Your task to perform on an android device: Is it going to rain tomorrow? Image 0: 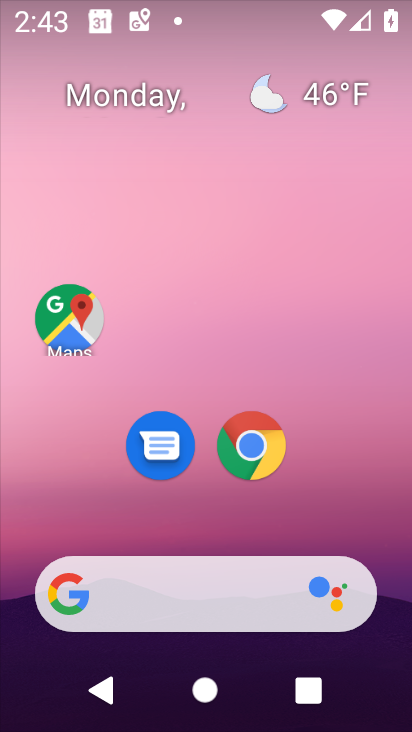
Step 0: click (260, 454)
Your task to perform on an android device: Is it going to rain tomorrow? Image 1: 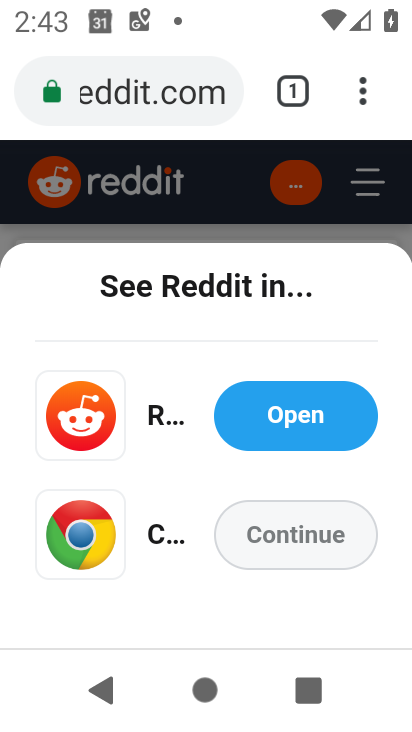
Step 1: click (163, 101)
Your task to perform on an android device: Is it going to rain tomorrow? Image 2: 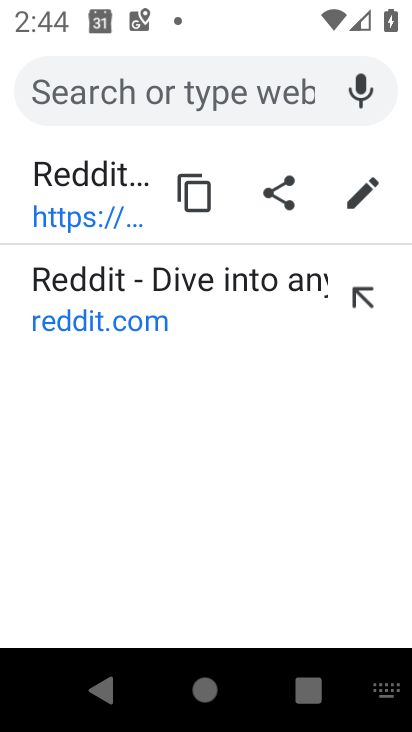
Step 2: type "is it going to rain tomorrow"
Your task to perform on an android device: Is it going to rain tomorrow? Image 3: 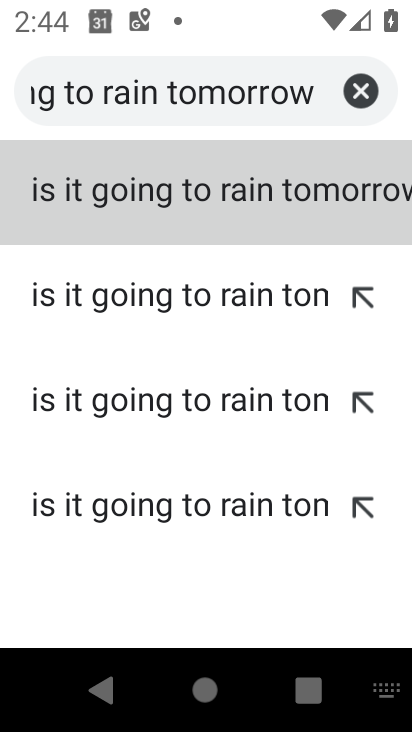
Step 3: click (307, 213)
Your task to perform on an android device: Is it going to rain tomorrow? Image 4: 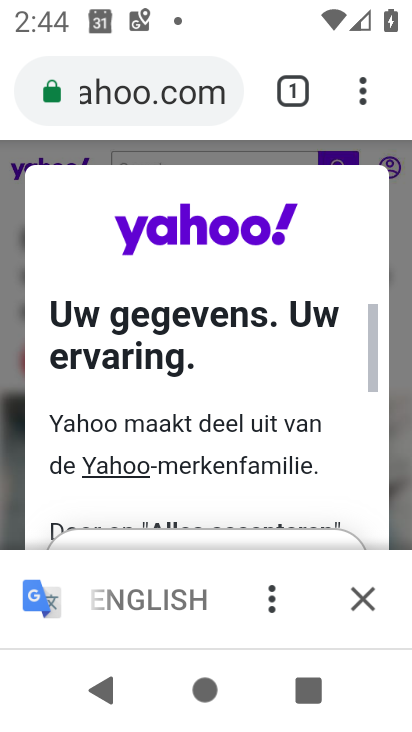
Step 4: task complete